Your task to perform on an android device: Go to Google maps Image 0: 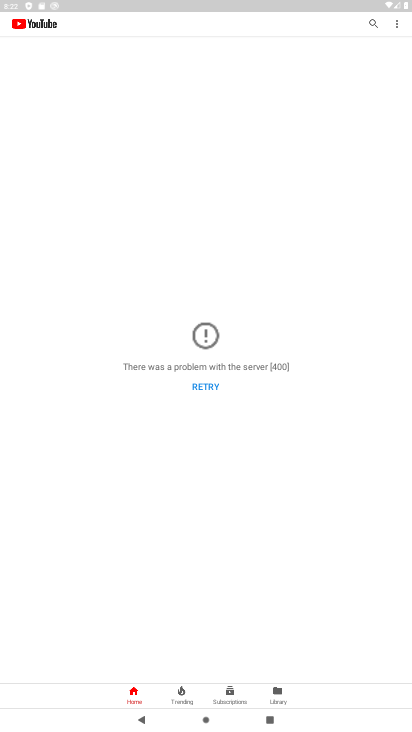
Step 0: press back button
Your task to perform on an android device: Go to Google maps Image 1: 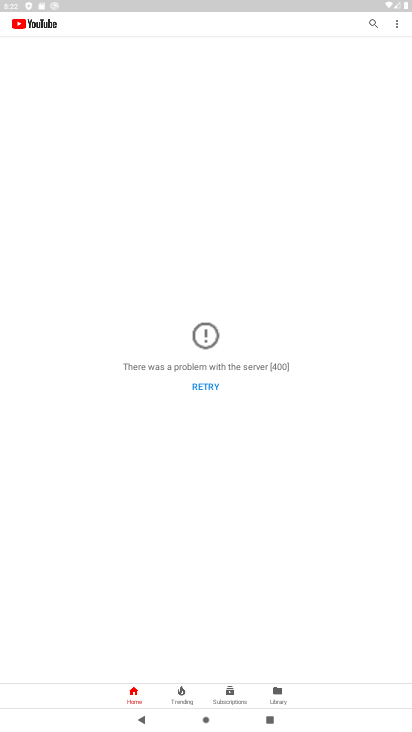
Step 1: press back button
Your task to perform on an android device: Go to Google maps Image 2: 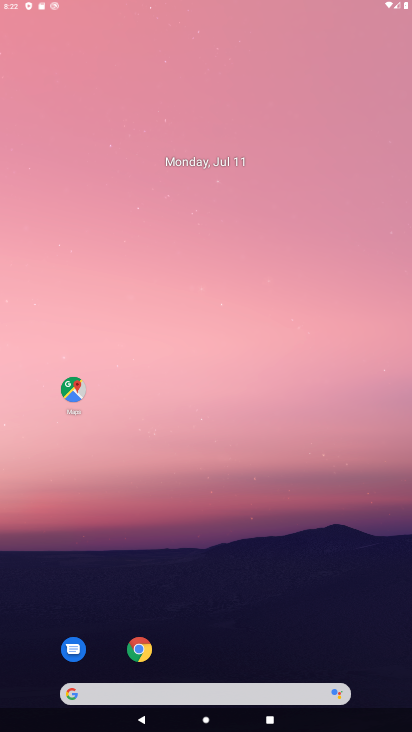
Step 2: press back button
Your task to perform on an android device: Go to Google maps Image 3: 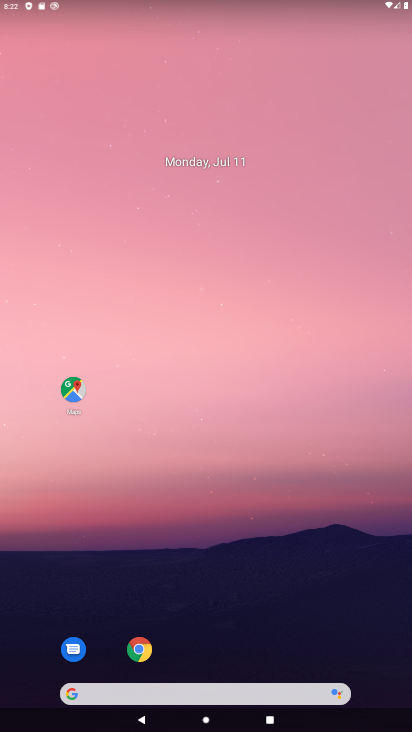
Step 3: press home button
Your task to perform on an android device: Go to Google maps Image 4: 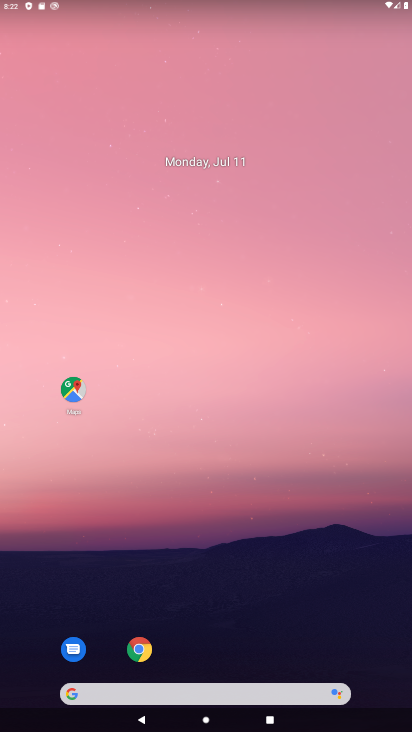
Step 4: click (243, 724)
Your task to perform on an android device: Go to Google maps Image 5: 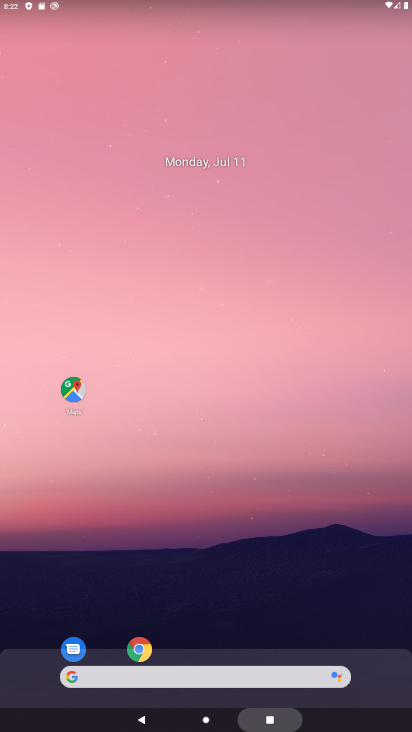
Step 5: click (80, 381)
Your task to perform on an android device: Go to Google maps Image 6: 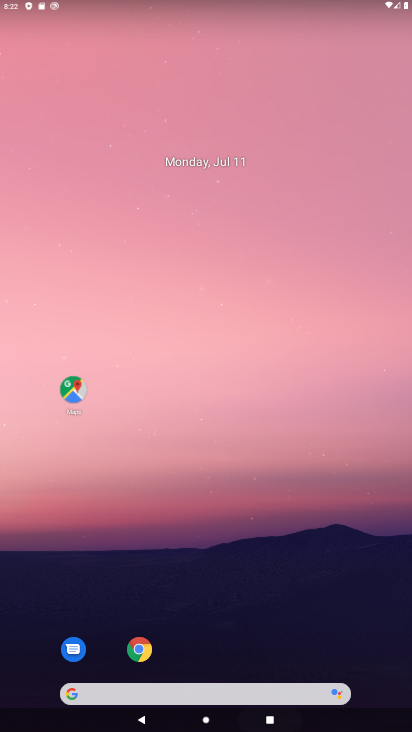
Step 6: click (76, 384)
Your task to perform on an android device: Go to Google maps Image 7: 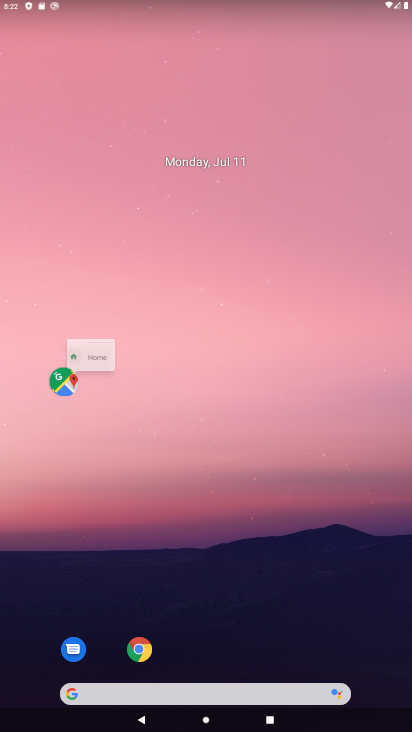
Step 7: click (68, 381)
Your task to perform on an android device: Go to Google maps Image 8: 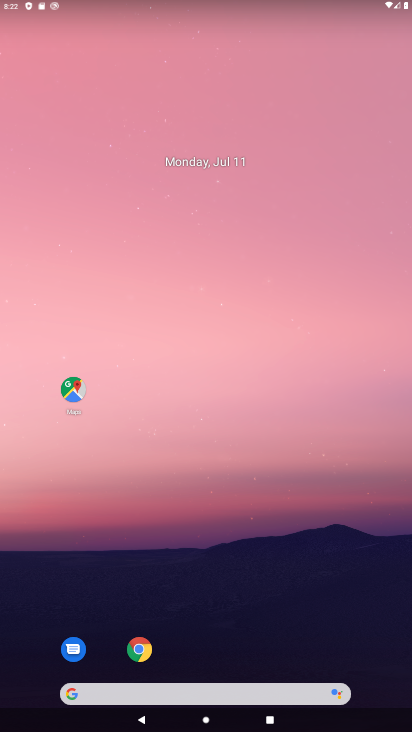
Step 8: click (72, 371)
Your task to perform on an android device: Go to Google maps Image 9: 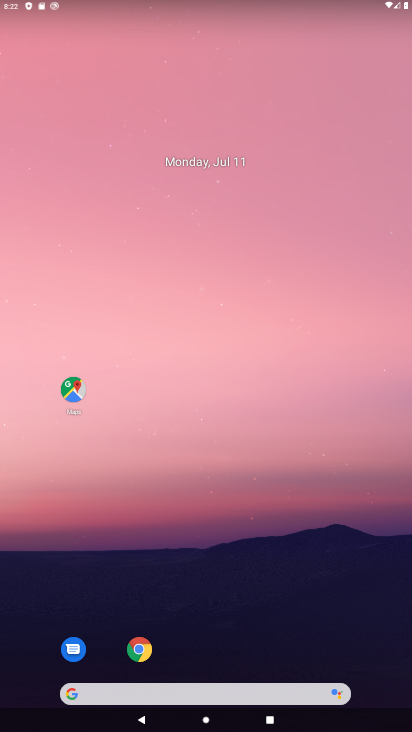
Step 9: click (75, 376)
Your task to perform on an android device: Go to Google maps Image 10: 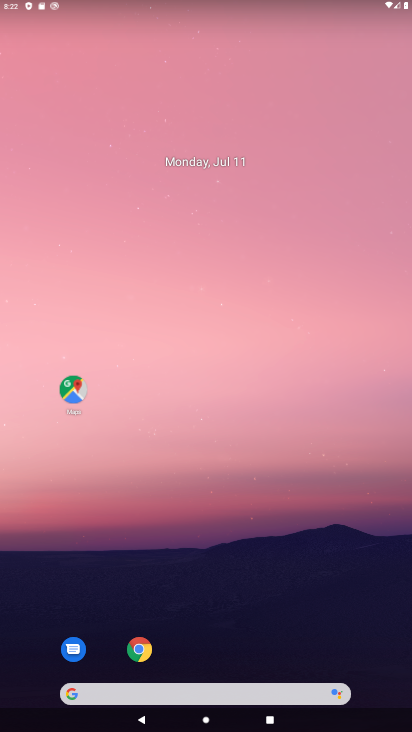
Step 10: click (75, 383)
Your task to perform on an android device: Go to Google maps Image 11: 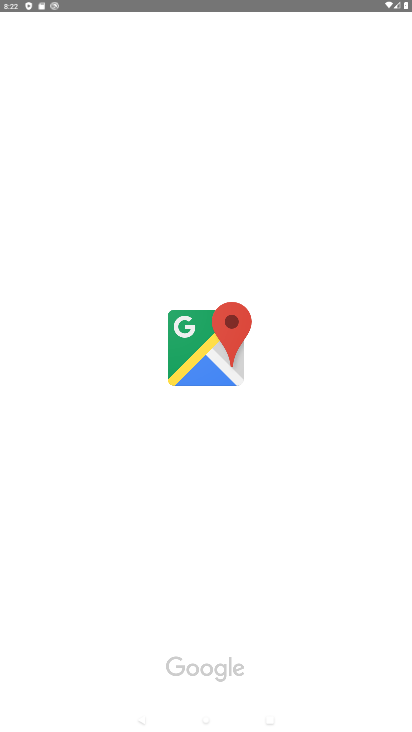
Step 11: click (75, 386)
Your task to perform on an android device: Go to Google maps Image 12: 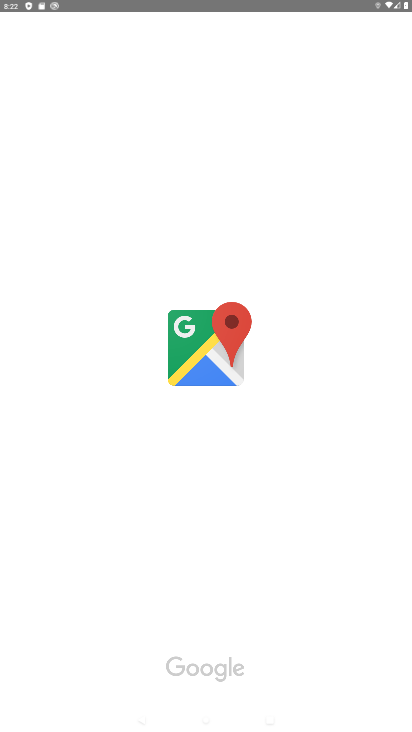
Step 12: click (175, 316)
Your task to perform on an android device: Go to Google maps Image 13: 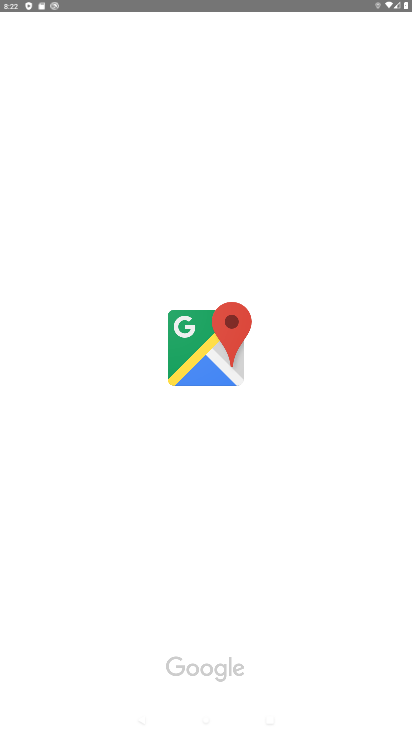
Step 13: click (210, 330)
Your task to perform on an android device: Go to Google maps Image 14: 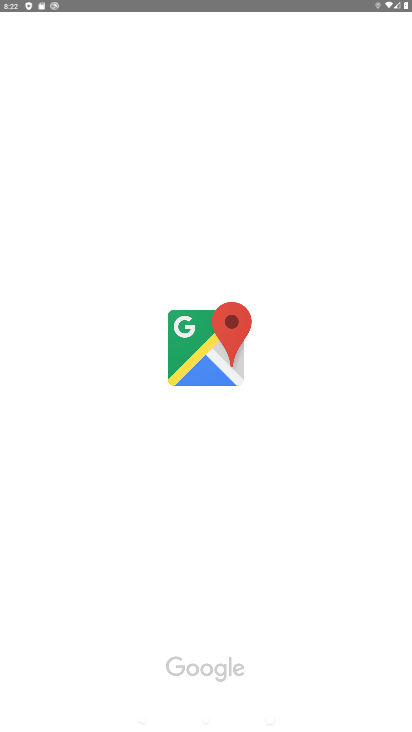
Step 14: click (229, 343)
Your task to perform on an android device: Go to Google maps Image 15: 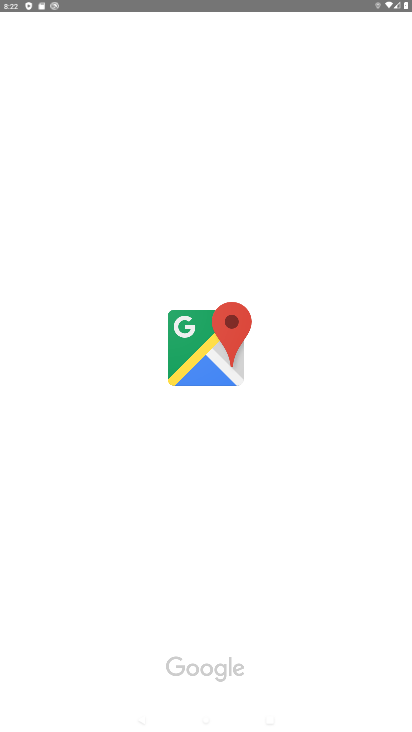
Step 15: click (229, 343)
Your task to perform on an android device: Go to Google maps Image 16: 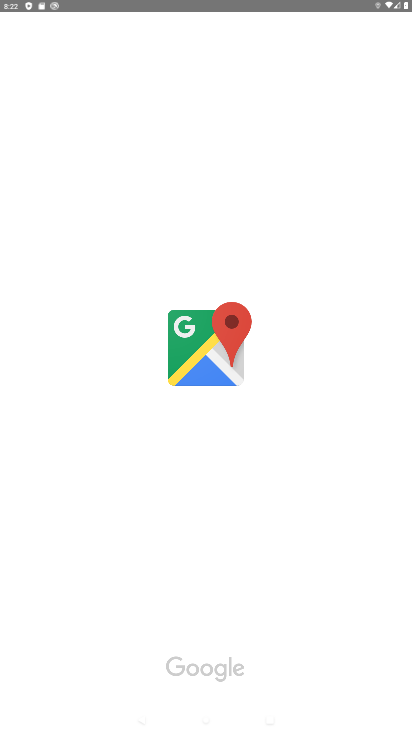
Step 16: click (212, 339)
Your task to perform on an android device: Go to Google maps Image 17: 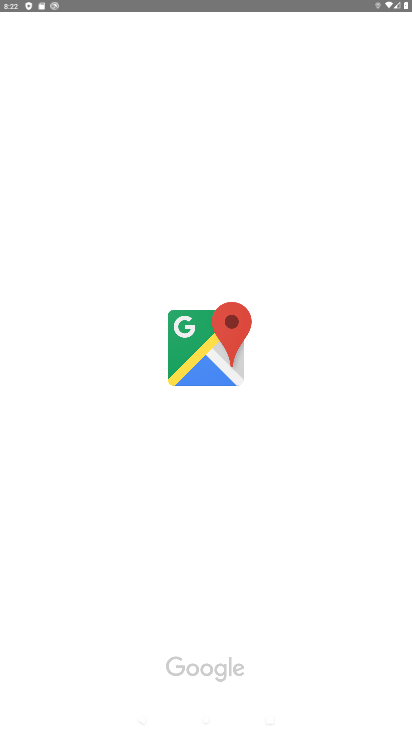
Step 17: click (212, 339)
Your task to perform on an android device: Go to Google maps Image 18: 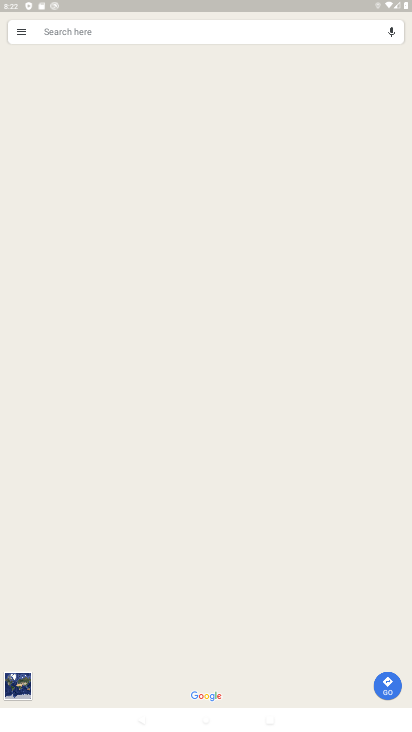
Step 18: click (214, 336)
Your task to perform on an android device: Go to Google maps Image 19: 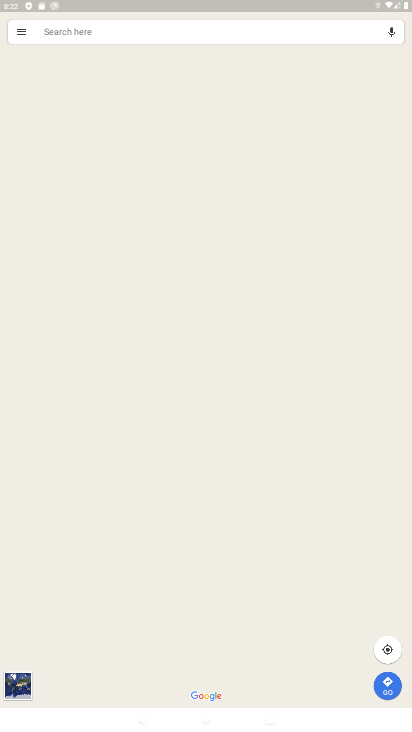
Step 19: click (214, 336)
Your task to perform on an android device: Go to Google maps Image 20: 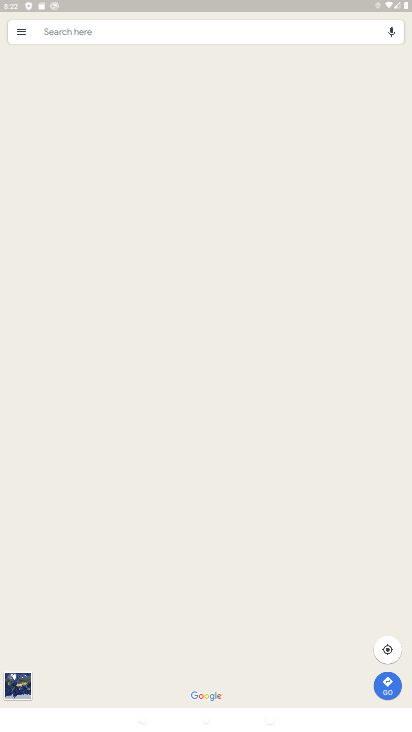
Step 20: click (215, 336)
Your task to perform on an android device: Go to Google maps Image 21: 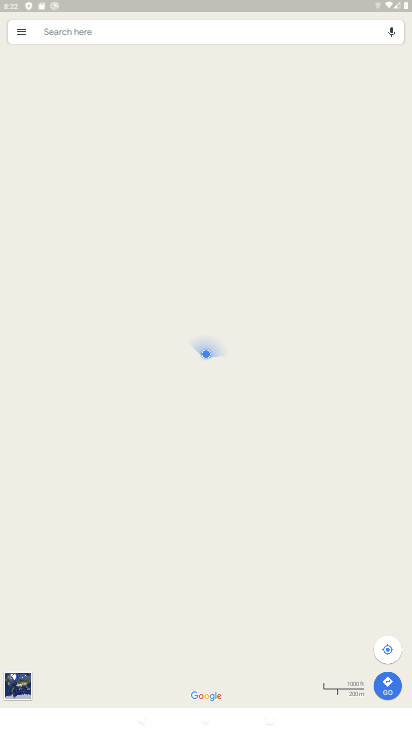
Step 21: task complete